Your task to perform on an android device: Open Wikipedia Image 0: 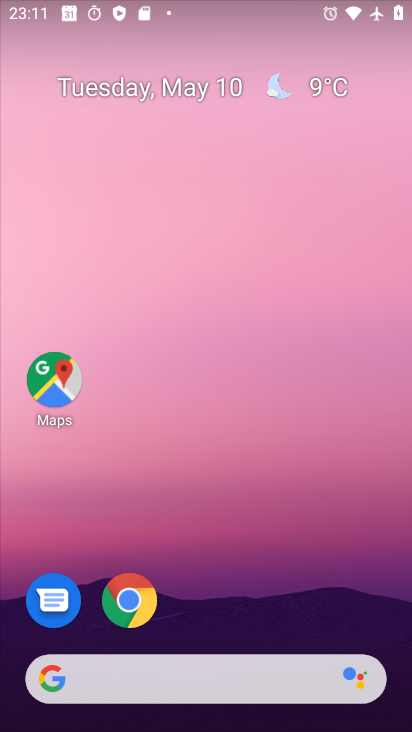
Step 0: drag from (351, 585) to (325, 152)
Your task to perform on an android device: Open Wikipedia Image 1: 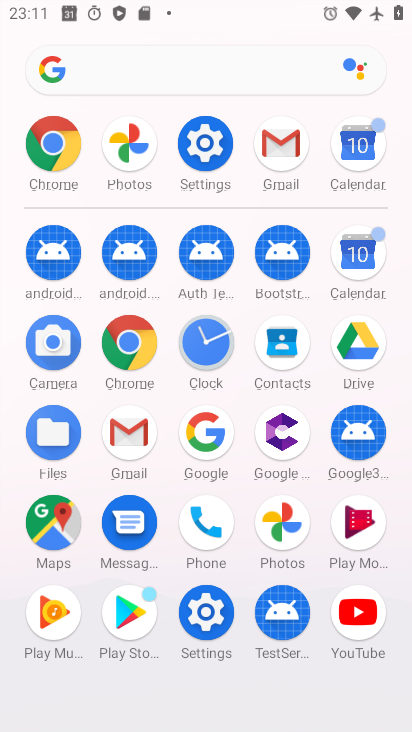
Step 1: click (45, 149)
Your task to perform on an android device: Open Wikipedia Image 2: 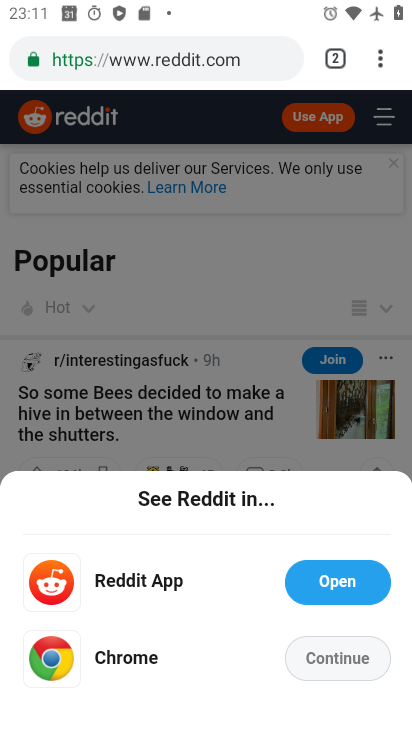
Step 2: click (195, 58)
Your task to perform on an android device: Open Wikipedia Image 3: 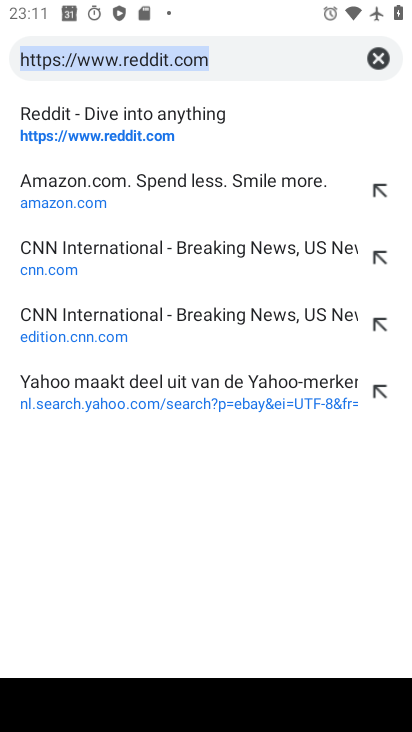
Step 3: click (381, 61)
Your task to perform on an android device: Open Wikipedia Image 4: 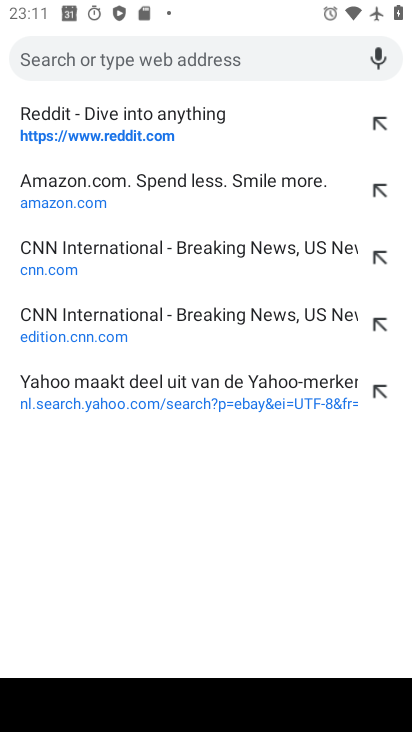
Step 4: type "wikipedi"
Your task to perform on an android device: Open Wikipedia Image 5: 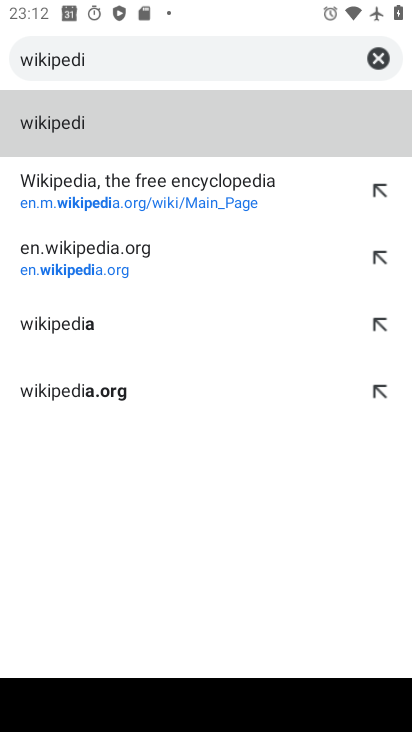
Step 5: click (239, 189)
Your task to perform on an android device: Open Wikipedia Image 6: 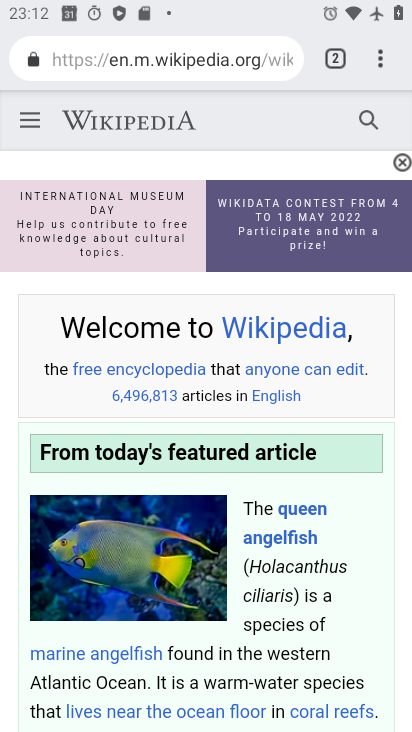
Step 6: task complete